Your task to perform on an android device: Search for seafood restaurants on Google Maps Image 0: 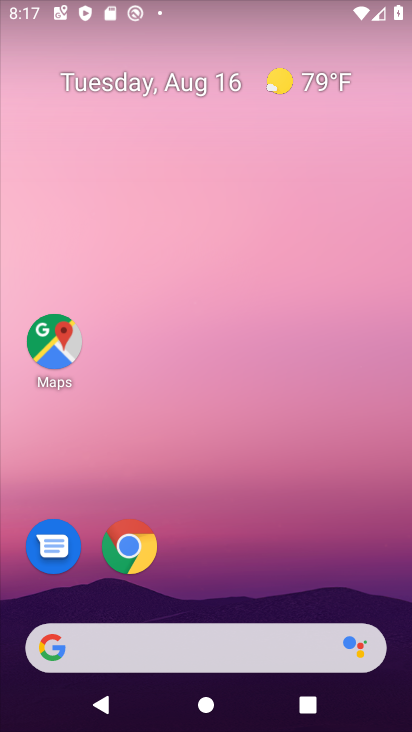
Step 0: click (46, 345)
Your task to perform on an android device: Search for seafood restaurants on Google Maps Image 1: 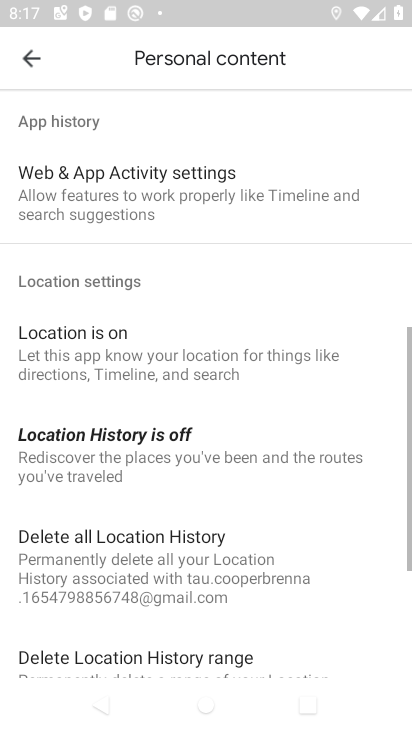
Step 1: click (27, 62)
Your task to perform on an android device: Search for seafood restaurants on Google Maps Image 2: 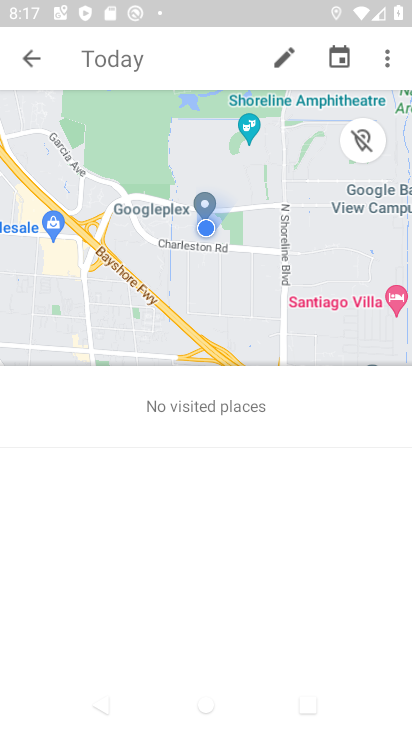
Step 2: click (27, 62)
Your task to perform on an android device: Search for seafood restaurants on Google Maps Image 3: 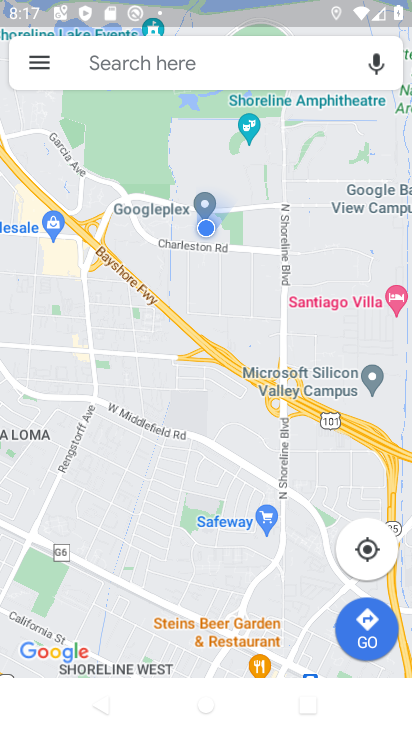
Step 3: click (164, 57)
Your task to perform on an android device: Search for seafood restaurants on Google Maps Image 4: 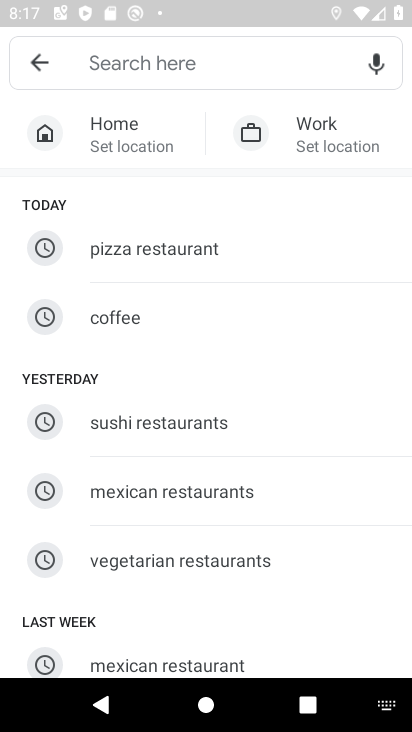
Step 4: type "seafood restaurants "
Your task to perform on an android device: Search for seafood restaurants on Google Maps Image 5: 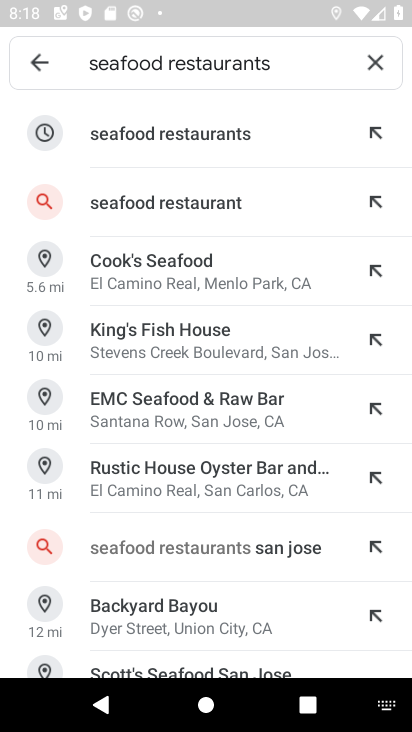
Step 5: click (147, 128)
Your task to perform on an android device: Search for seafood restaurants on Google Maps Image 6: 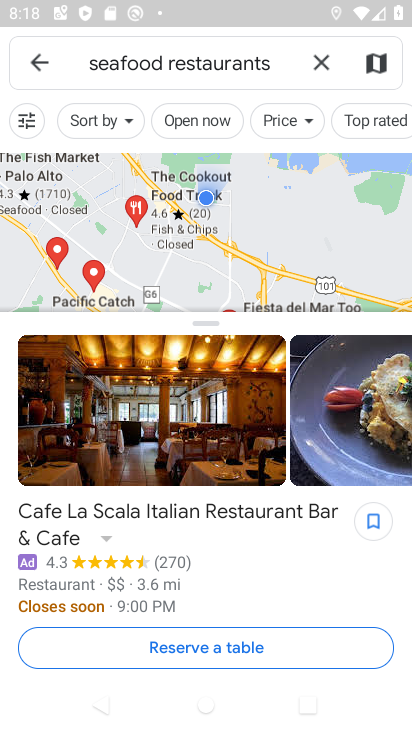
Step 6: task complete